Your task to perform on an android device: Open display settings Image 0: 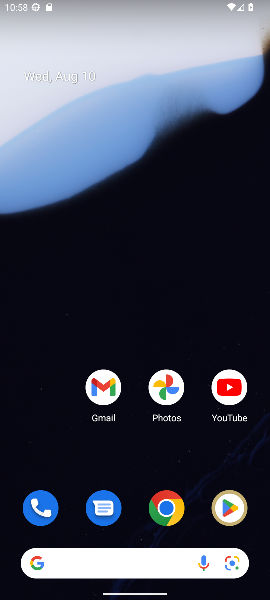
Step 0: drag from (143, 529) to (88, 90)
Your task to perform on an android device: Open display settings Image 1: 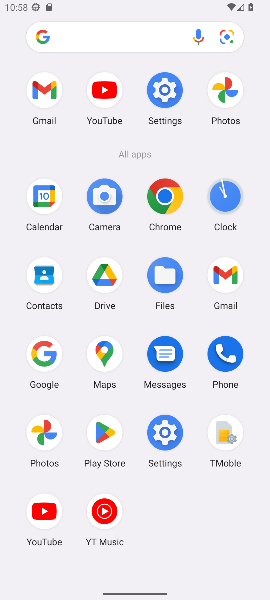
Step 1: click (169, 90)
Your task to perform on an android device: Open display settings Image 2: 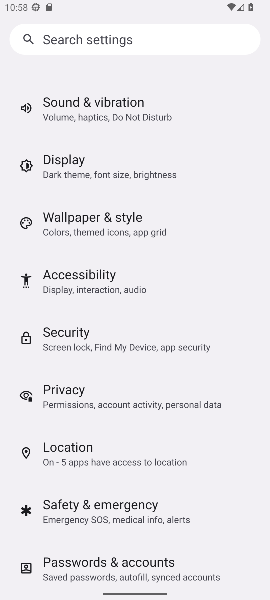
Step 2: click (53, 166)
Your task to perform on an android device: Open display settings Image 3: 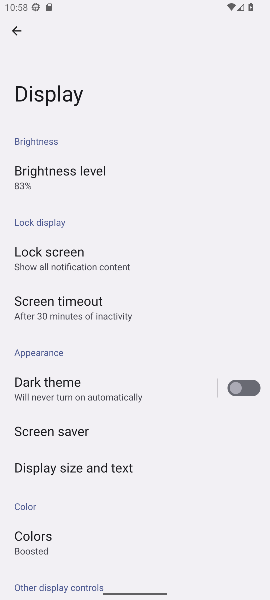
Step 3: task complete